Your task to perform on an android device: Go to accessibility settings Image 0: 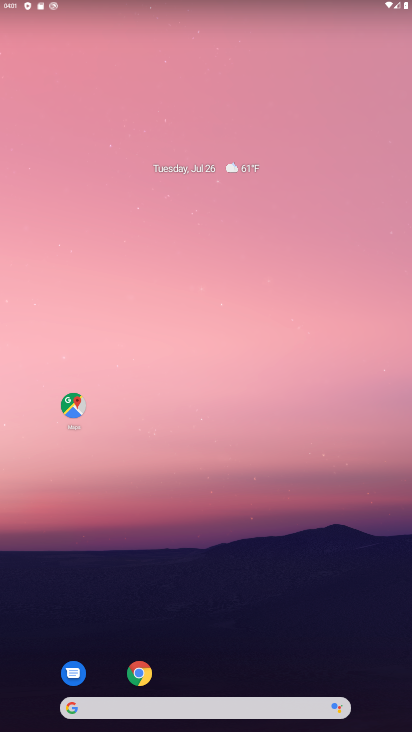
Step 0: press home button
Your task to perform on an android device: Go to accessibility settings Image 1: 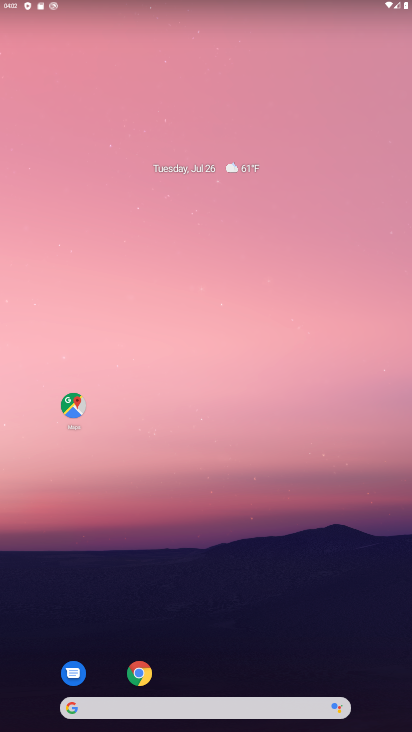
Step 1: drag from (222, 665) to (234, 110)
Your task to perform on an android device: Go to accessibility settings Image 2: 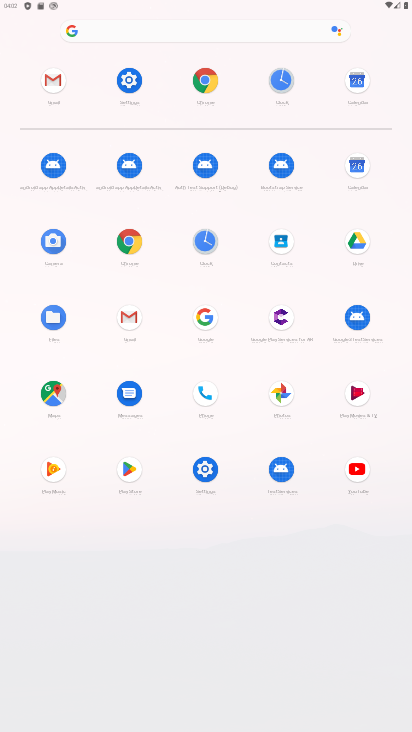
Step 2: click (205, 464)
Your task to perform on an android device: Go to accessibility settings Image 3: 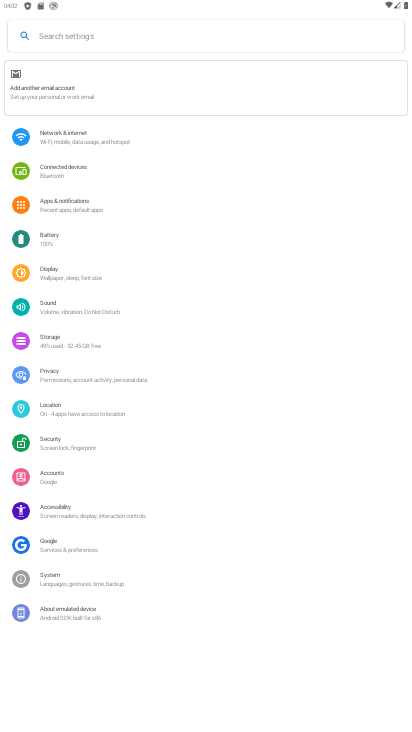
Step 3: click (80, 503)
Your task to perform on an android device: Go to accessibility settings Image 4: 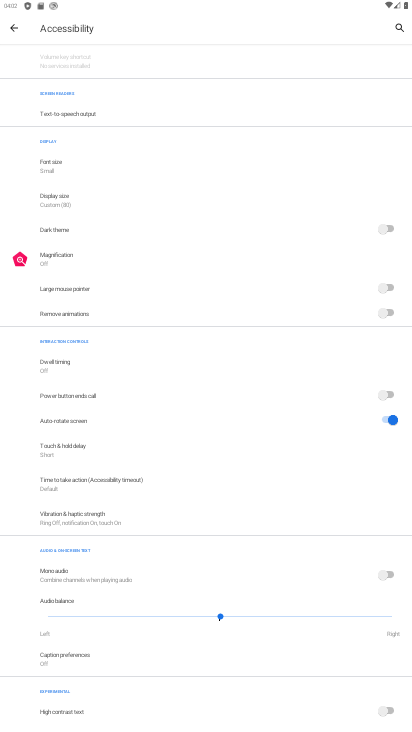
Step 4: task complete